Your task to perform on an android device: What's the weather going to be tomorrow? Image 0: 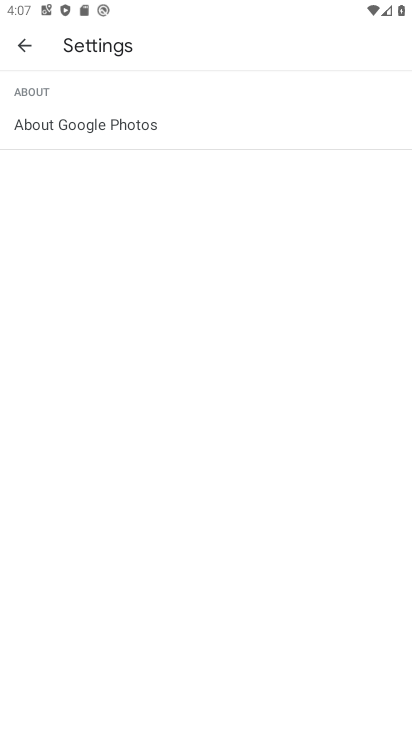
Step 0: press home button
Your task to perform on an android device: What's the weather going to be tomorrow? Image 1: 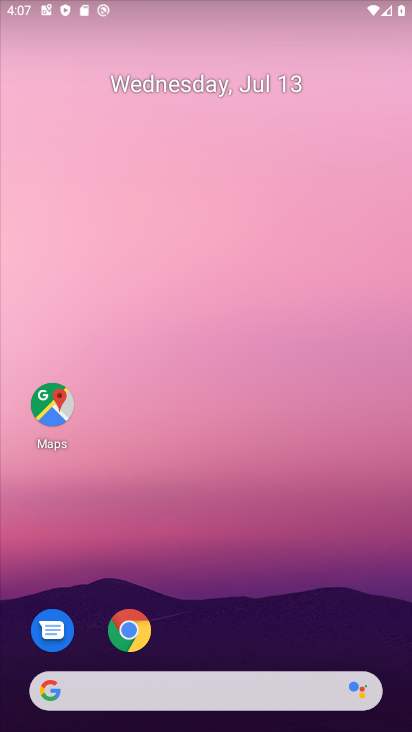
Step 1: drag from (257, 700) to (255, 122)
Your task to perform on an android device: What's the weather going to be tomorrow? Image 2: 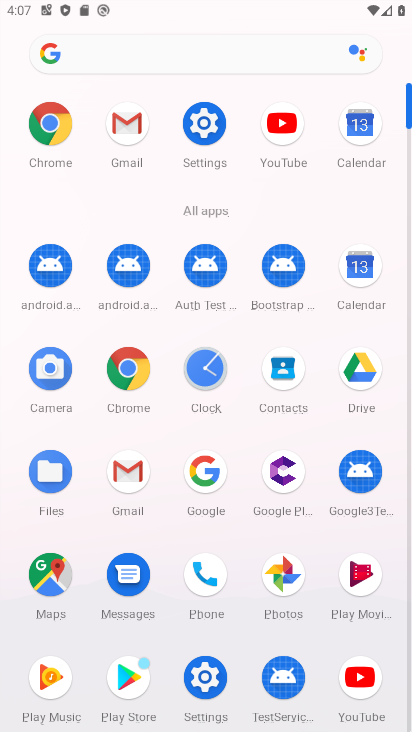
Step 2: click (121, 365)
Your task to perform on an android device: What's the weather going to be tomorrow? Image 3: 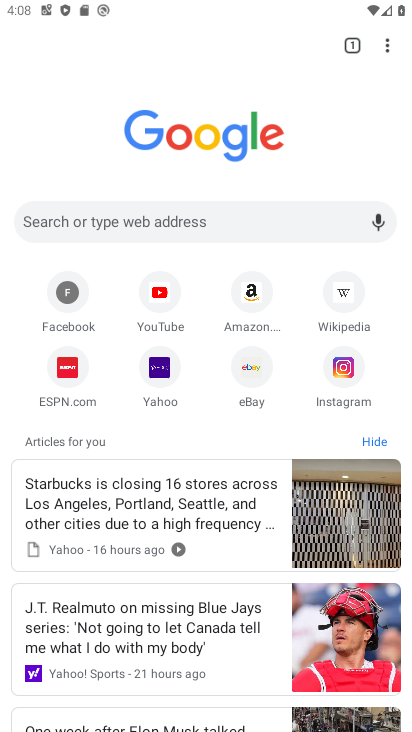
Step 3: click (262, 233)
Your task to perform on an android device: What's the weather going to be tomorrow? Image 4: 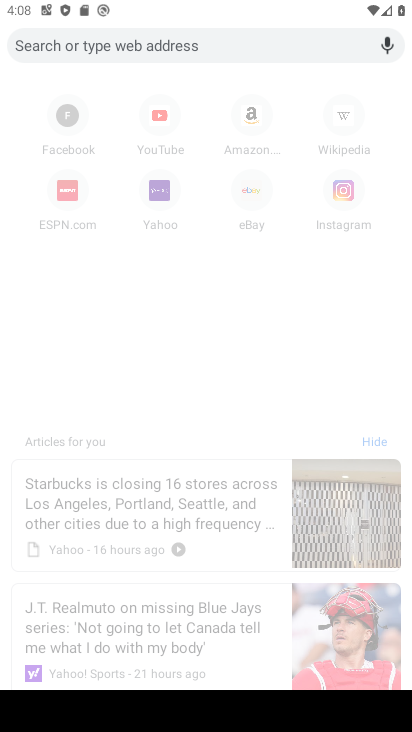
Step 4: type "weather going to be tomorrow"
Your task to perform on an android device: What's the weather going to be tomorrow? Image 5: 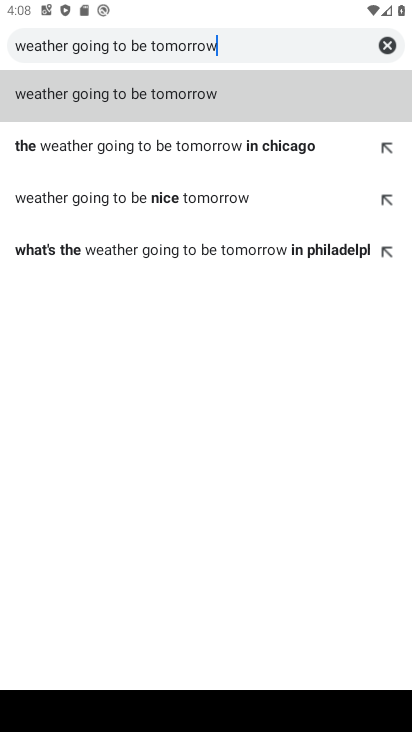
Step 5: click (205, 92)
Your task to perform on an android device: What's the weather going to be tomorrow? Image 6: 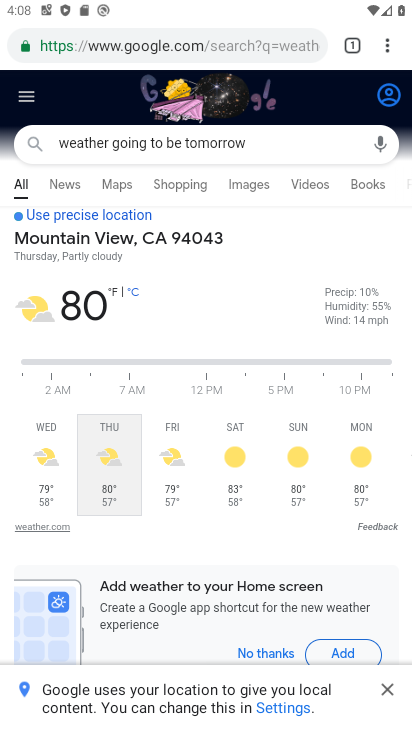
Step 6: task complete